Your task to perform on an android device: turn on notifications settings in the gmail app Image 0: 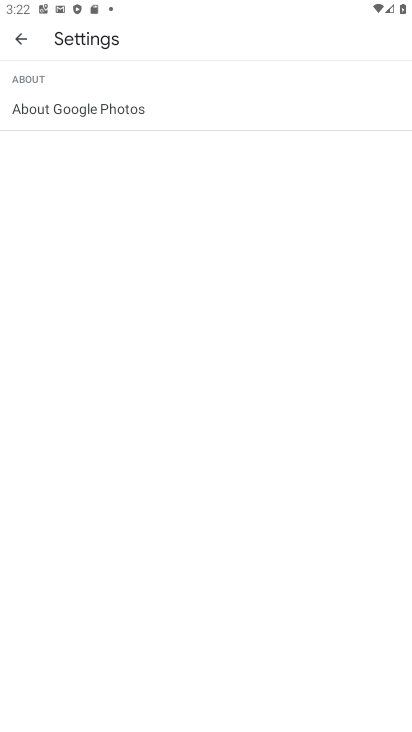
Step 0: press home button
Your task to perform on an android device: turn on notifications settings in the gmail app Image 1: 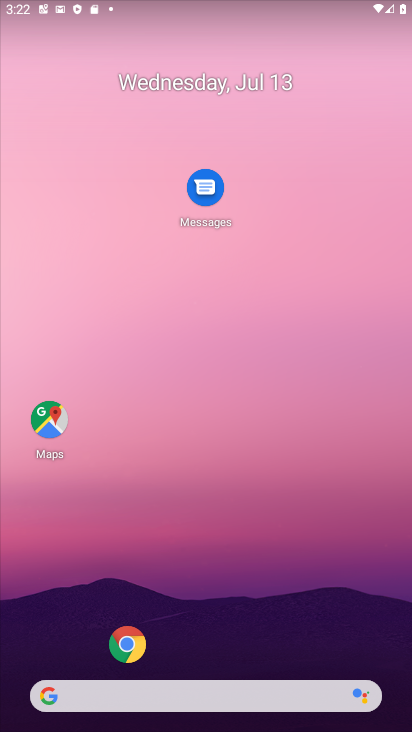
Step 1: drag from (27, 678) to (164, 200)
Your task to perform on an android device: turn on notifications settings in the gmail app Image 2: 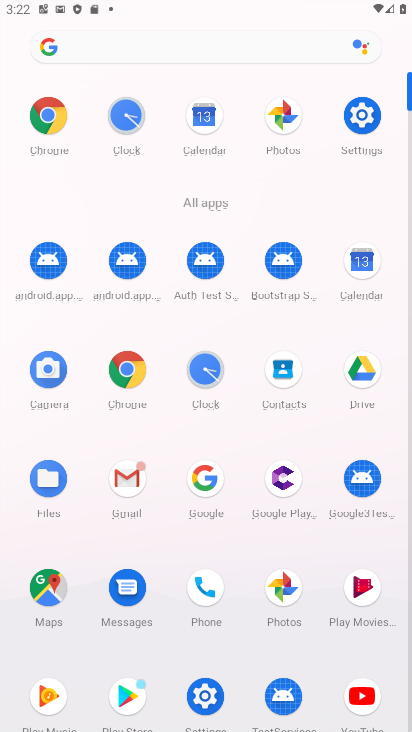
Step 2: click (132, 485)
Your task to perform on an android device: turn on notifications settings in the gmail app Image 3: 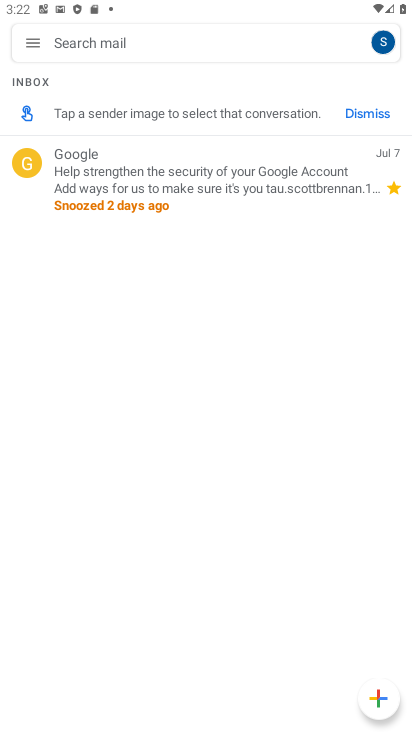
Step 3: click (28, 47)
Your task to perform on an android device: turn on notifications settings in the gmail app Image 4: 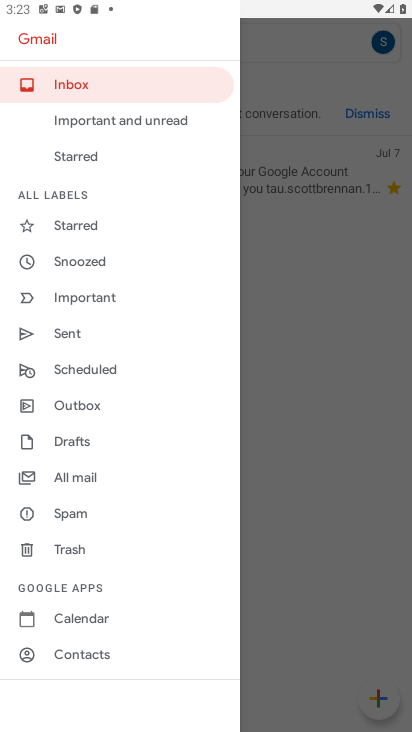
Step 4: drag from (157, 667) to (137, 332)
Your task to perform on an android device: turn on notifications settings in the gmail app Image 5: 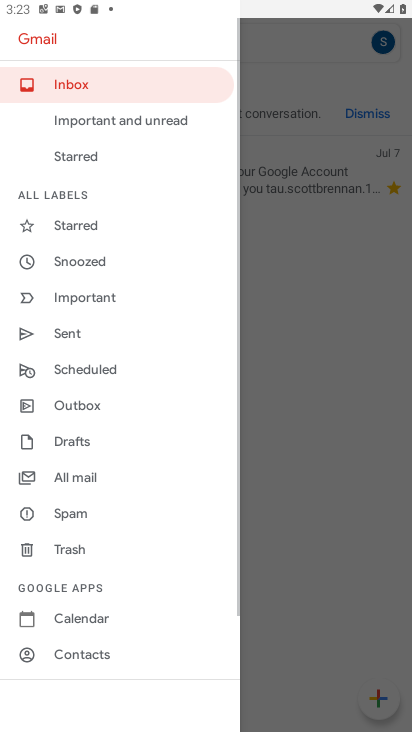
Step 5: drag from (127, 689) to (132, 510)
Your task to perform on an android device: turn on notifications settings in the gmail app Image 6: 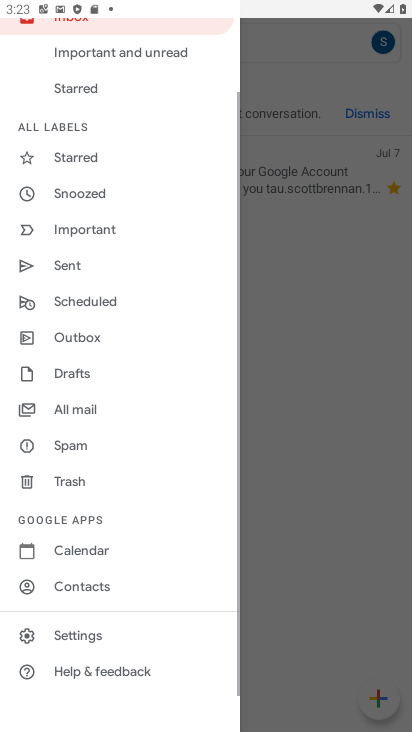
Step 6: click (92, 634)
Your task to perform on an android device: turn on notifications settings in the gmail app Image 7: 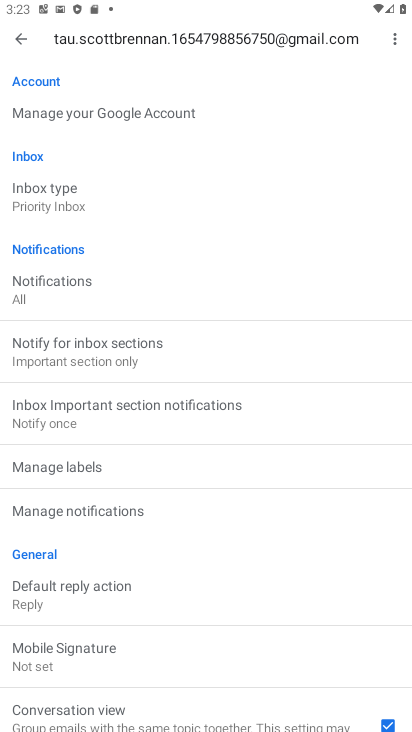
Step 7: click (53, 284)
Your task to perform on an android device: turn on notifications settings in the gmail app Image 8: 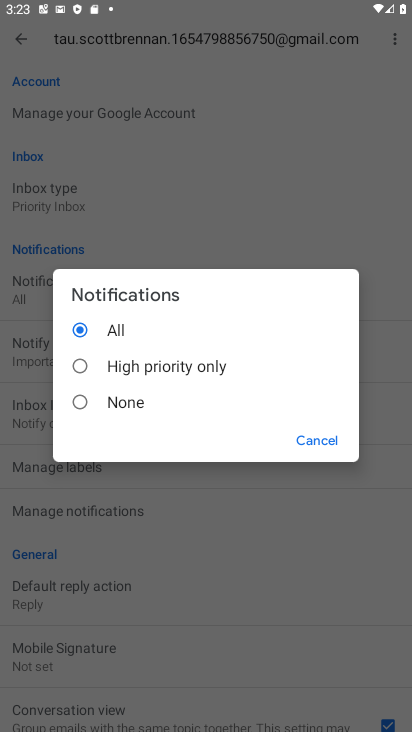
Step 8: click (194, 195)
Your task to perform on an android device: turn on notifications settings in the gmail app Image 9: 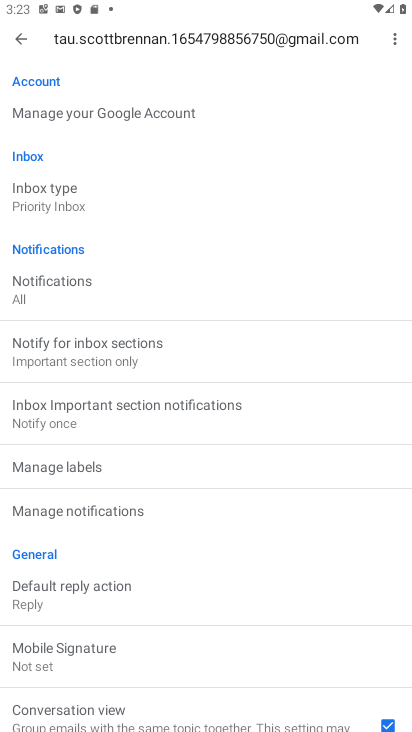
Step 9: task complete